Your task to perform on an android device: Show the shopping cart on costco. Image 0: 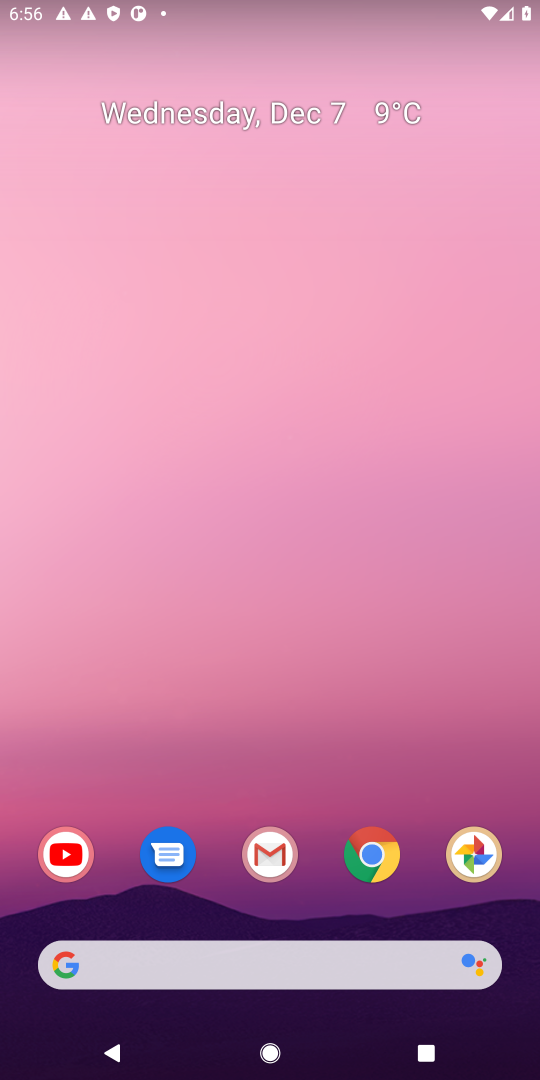
Step 0: click (334, 964)
Your task to perform on an android device: Show the shopping cart on costco. Image 1: 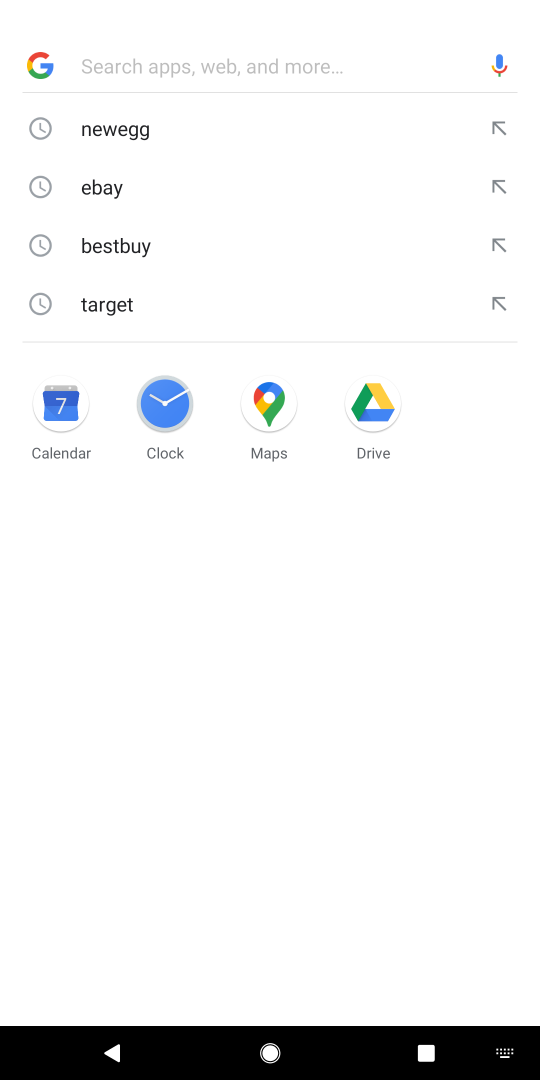
Step 1: type "costco.com"
Your task to perform on an android device: Show the shopping cart on costco. Image 2: 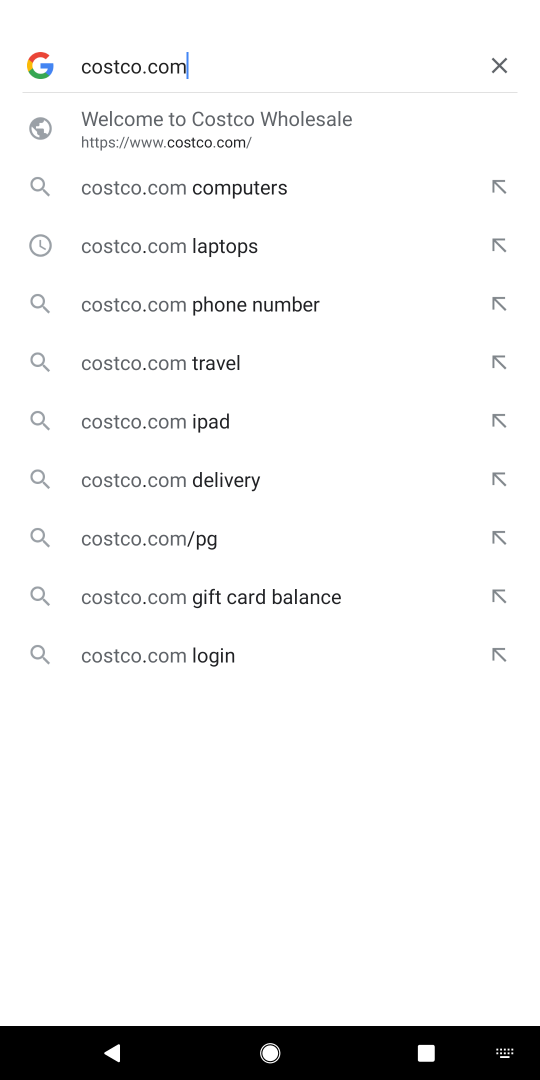
Step 2: click (260, 162)
Your task to perform on an android device: Show the shopping cart on costco. Image 3: 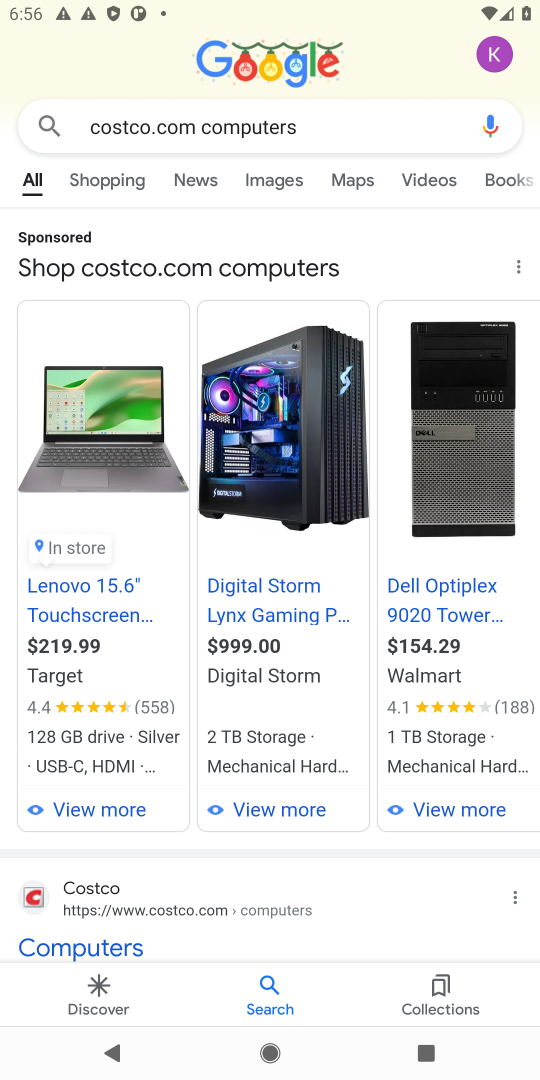
Step 3: click (84, 931)
Your task to perform on an android device: Show the shopping cart on costco. Image 4: 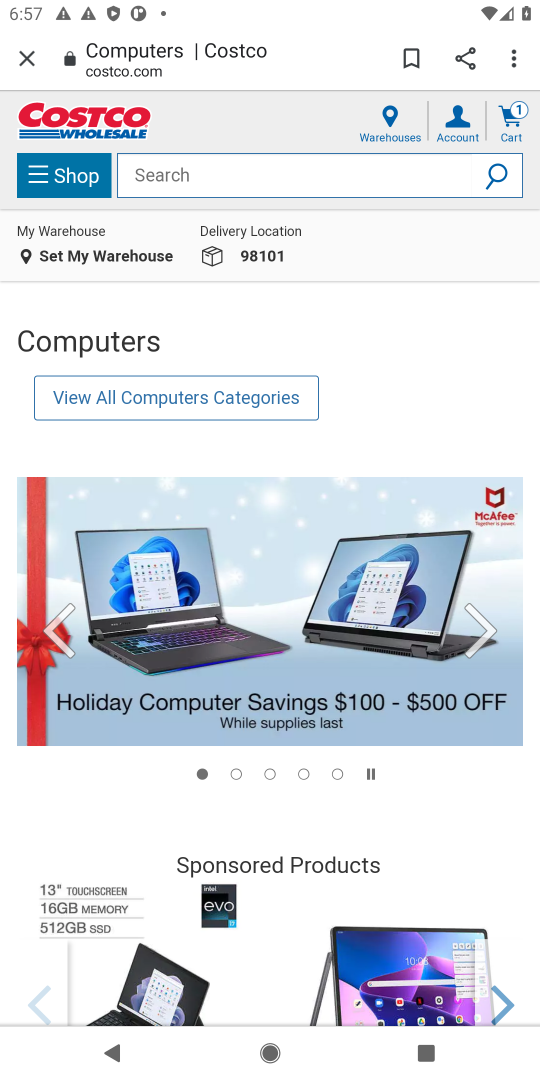
Step 4: click (357, 851)
Your task to perform on an android device: Show the shopping cart on costco. Image 5: 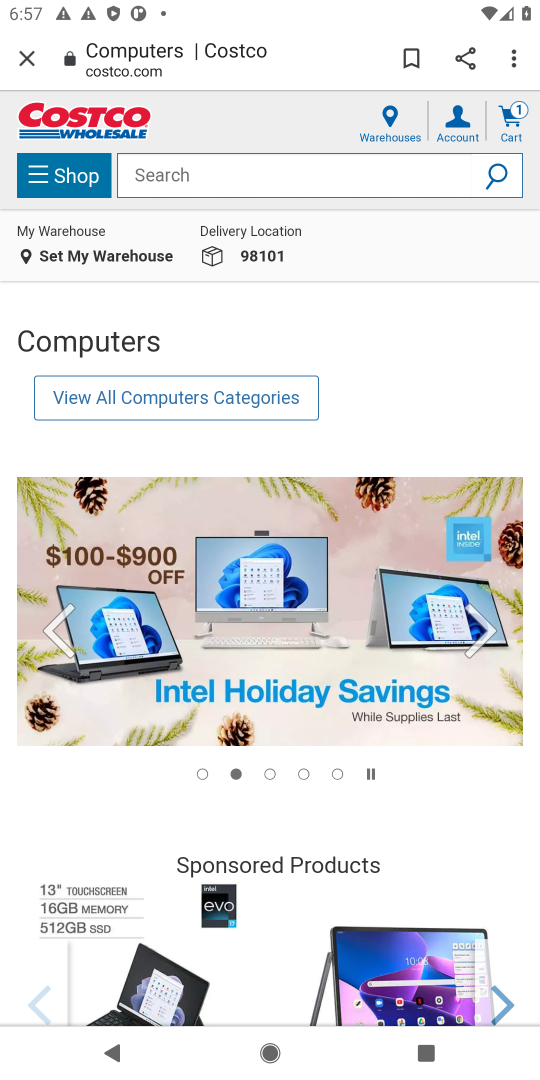
Step 5: click (430, 244)
Your task to perform on an android device: Show the shopping cart on costco. Image 6: 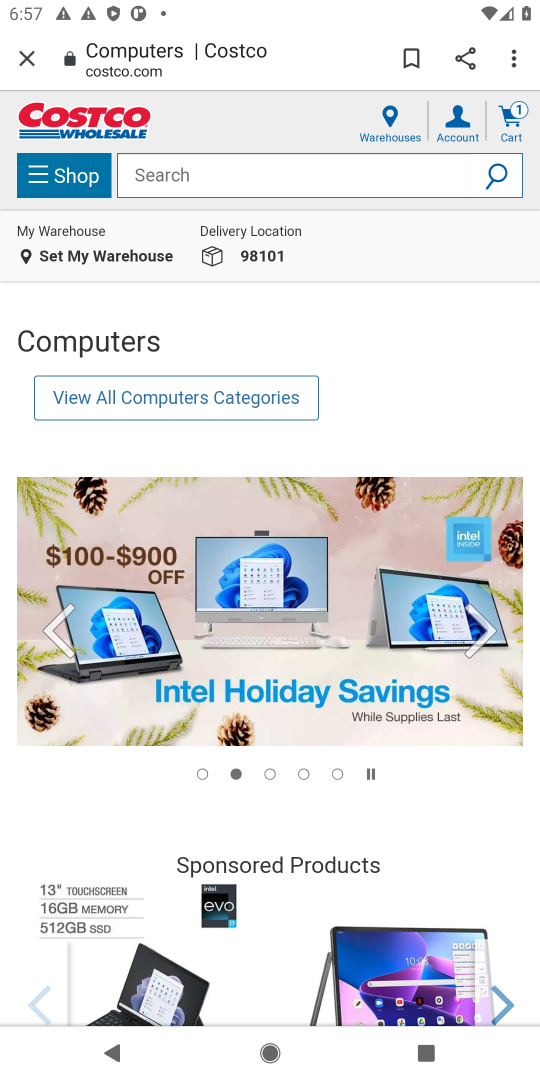
Step 6: click (474, 397)
Your task to perform on an android device: Show the shopping cart on costco. Image 7: 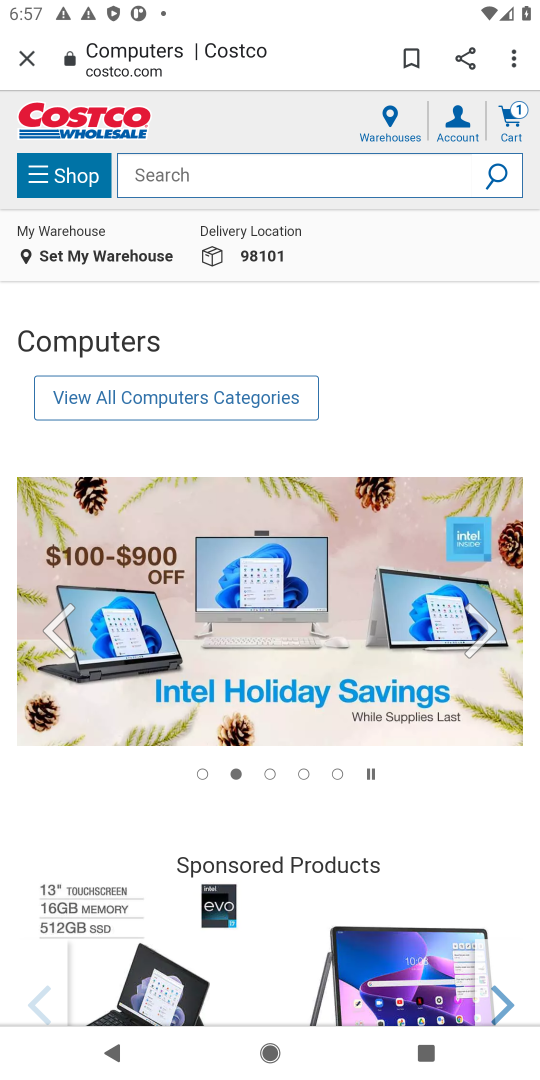
Step 7: task complete